Your task to perform on an android device: Clear the cart on amazon. Add "razer blade" to the cart on amazon, then select checkout. Image 0: 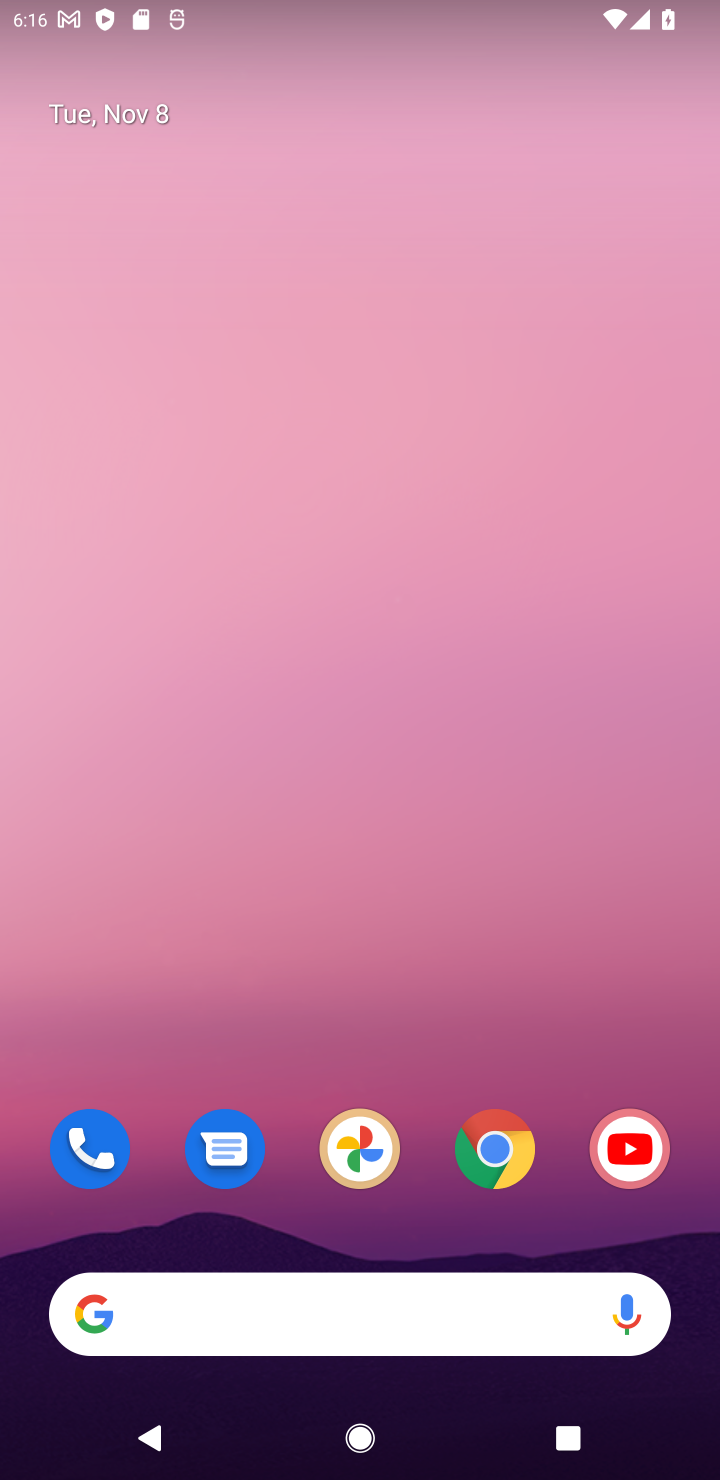
Step 0: click (511, 1167)
Your task to perform on an android device: Clear the cart on amazon. Add "razer blade" to the cart on amazon, then select checkout. Image 1: 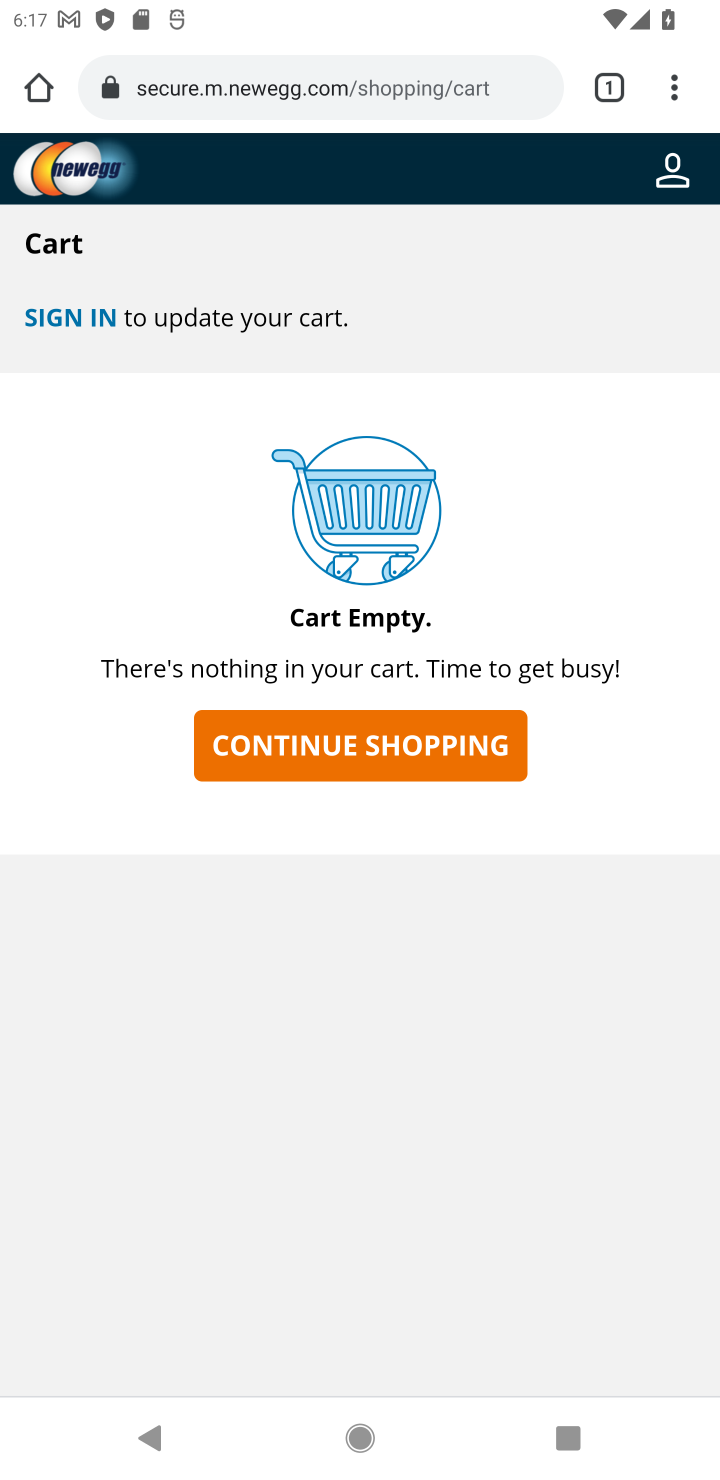
Step 1: click (49, 87)
Your task to perform on an android device: Clear the cart on amazon. Add "razer blade" to the cart on amazon, then select checkout. Image 2: 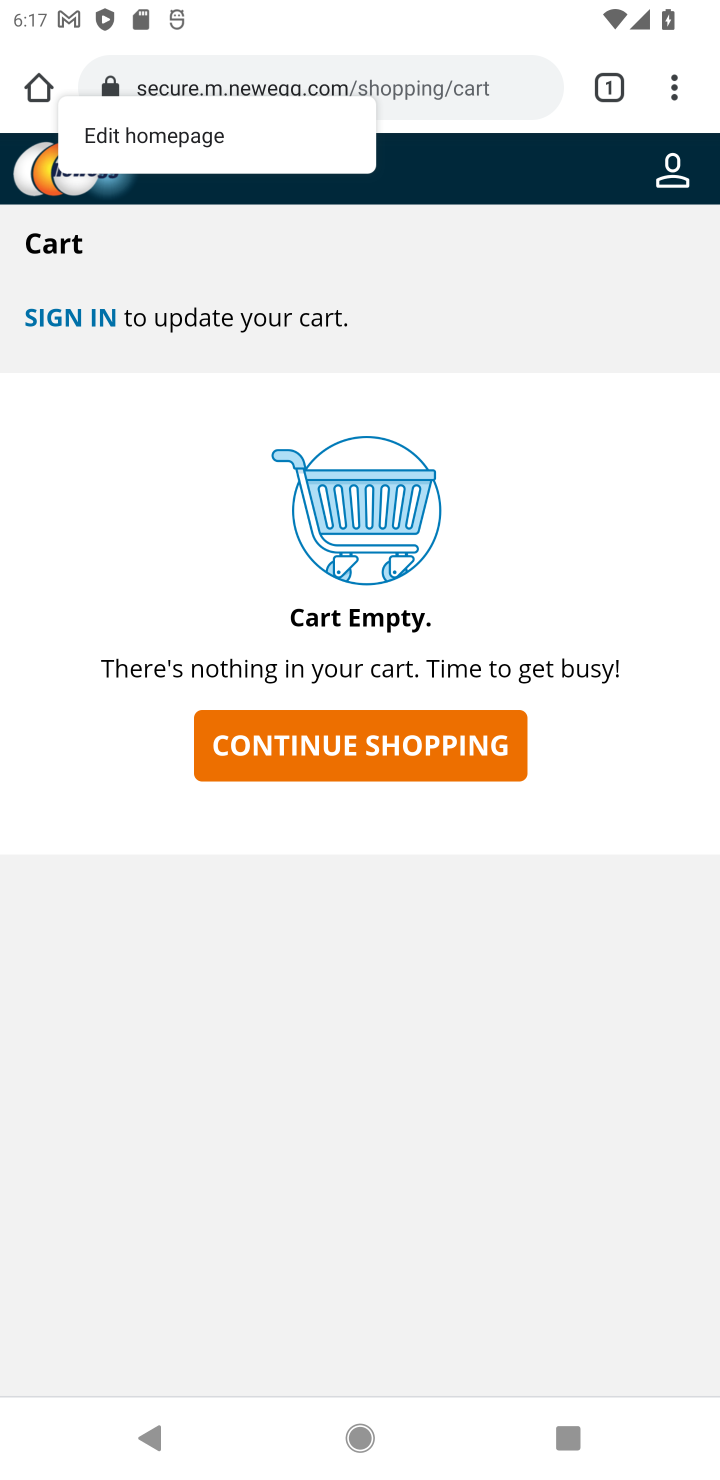
Step 2: click (39, 89)
Your task to perform on an android device: Clear the cart on amazon. Add "razer blade" to the cart on amazon, then select checkout. Image 3: 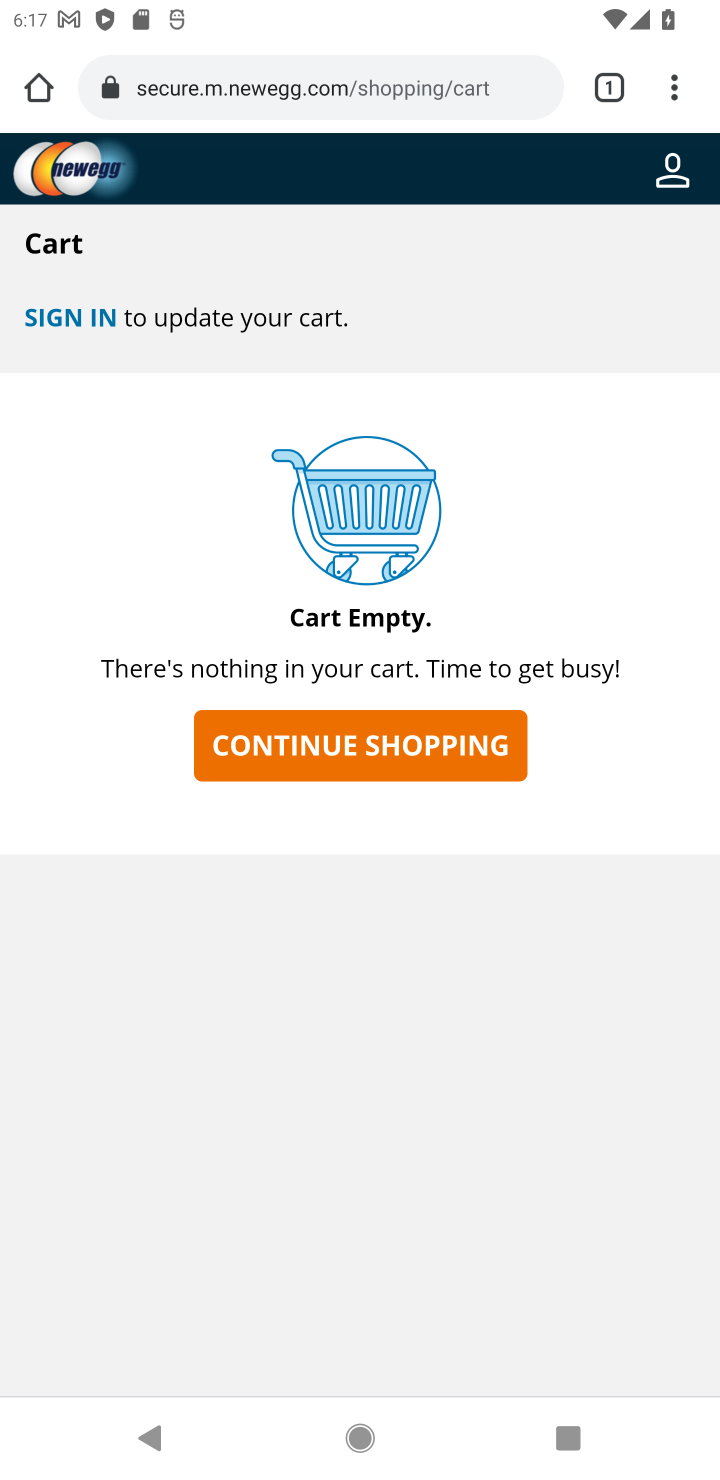
Step 3: click (39, 89)
Your task to perform on an android device: Clear the cart on amazon. Add "razer blade" to the cart on amazon, then select checkout. Image 4: 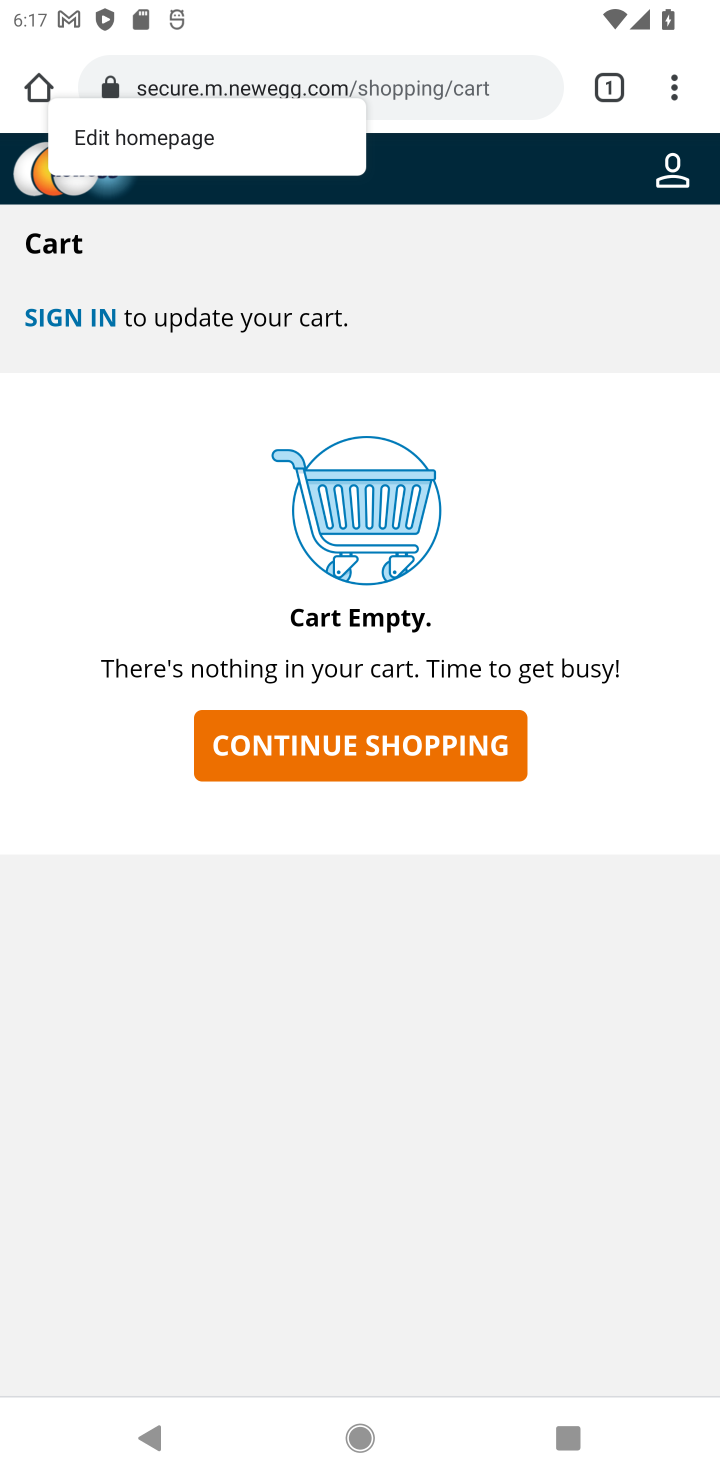
Step 4: click (531, 74)
Your task to perform on an android device: Clear the cart on amazon. Add "razer blade" to the cart on amazon, then select checkout. Image 5: 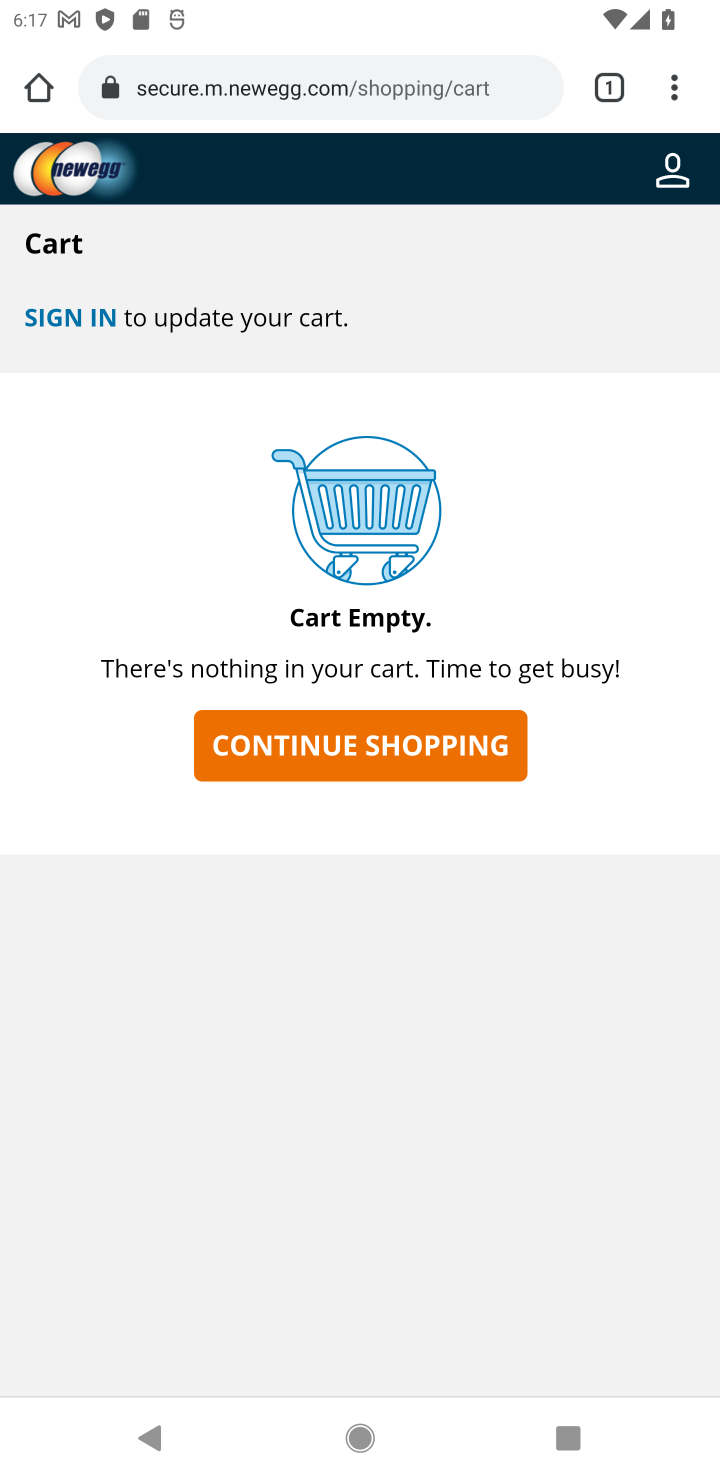
Step 5: click (531, 74)
Your task to perform on an android device: Clear the cart on amazon. Add "razer blade" to the cart on amazon, then select checkout. Image 6: 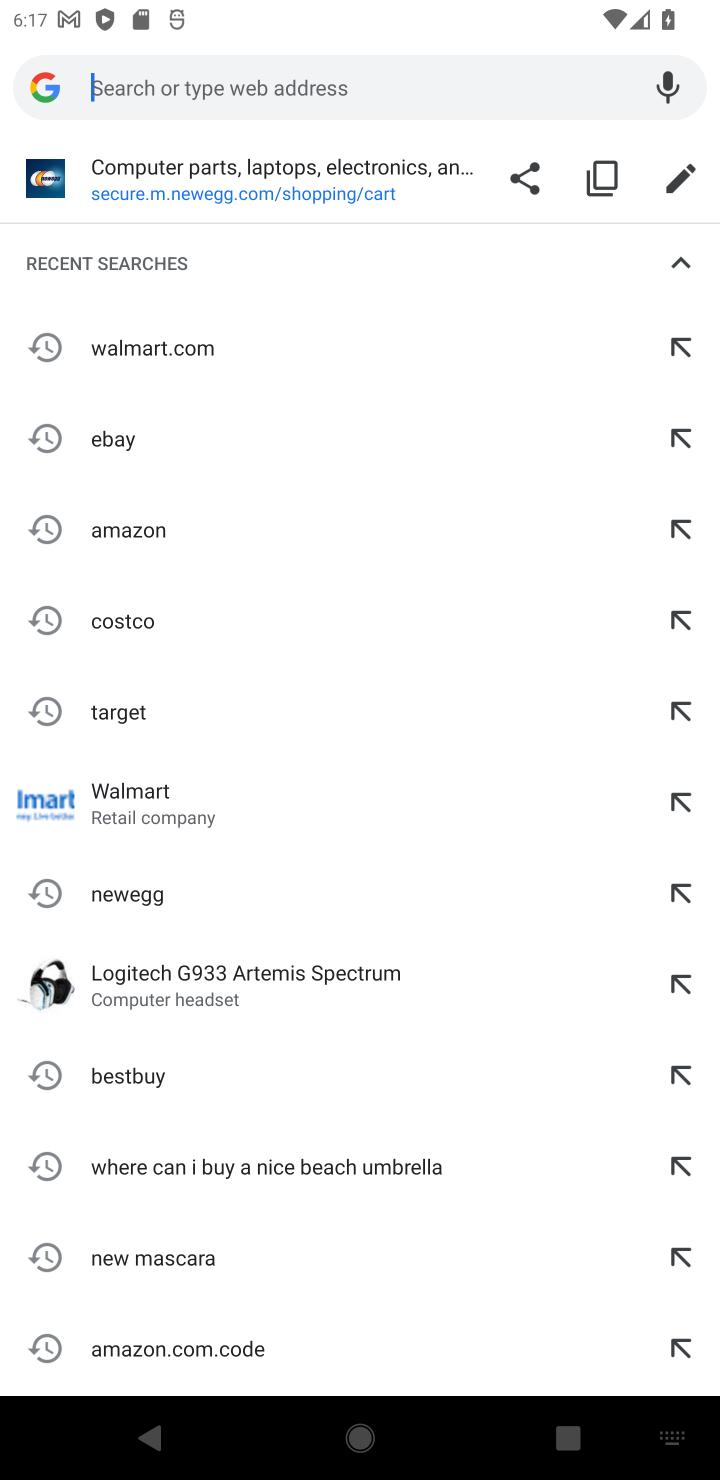
Step 6: click (143, 537)
Your task to perform on an android device: Clear the cart on amazon. Add "razer blade" to the cart on amazon, then select checkout. Image 7: 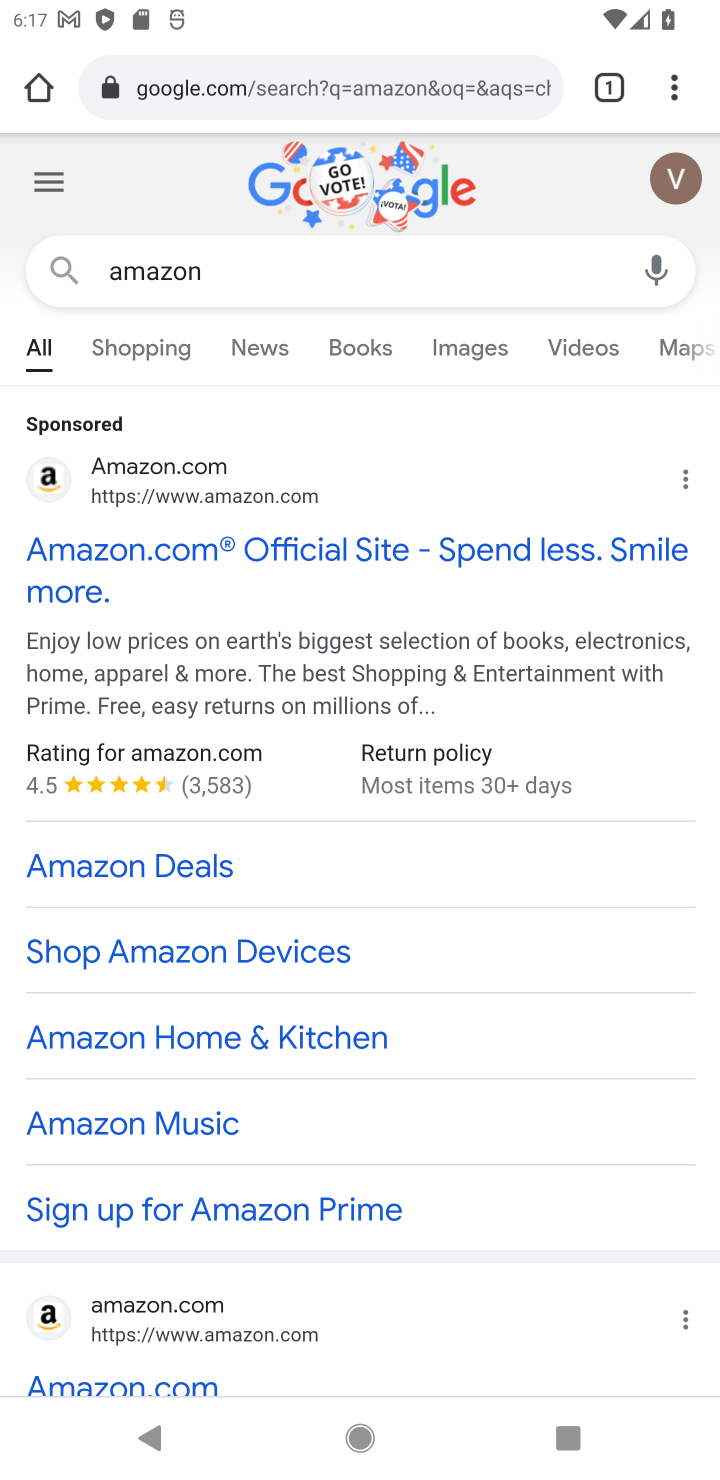
Step 7: click (266, 489)
Your task to perform on an android device: Clear the cart on amazon. Add "razer blade" to the cart on amazon, then select checkout. Image 8: 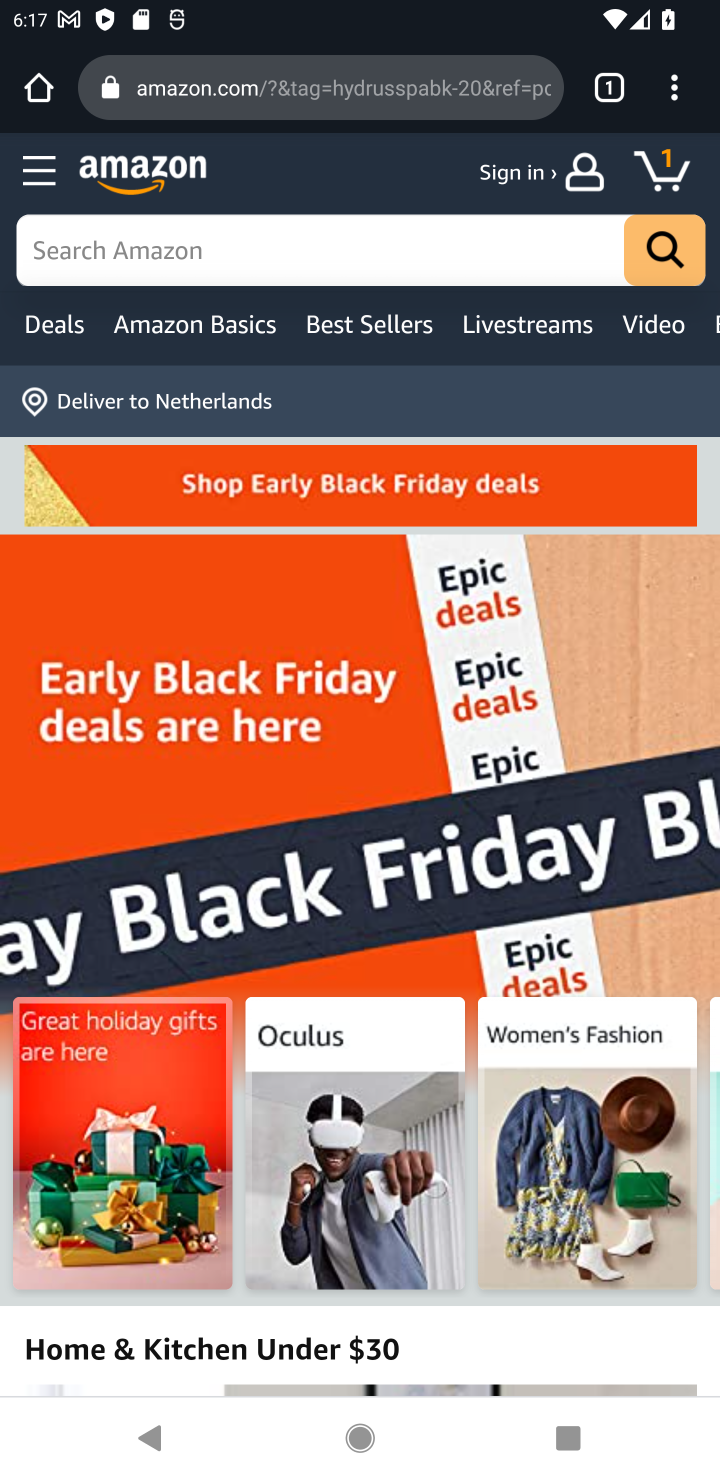
Step 8: click (662, 165)
Your task to perform on an android device: Clear the cart on amazon. Add "razer blade" to the cart on amazon, then select checkout. Image 9: 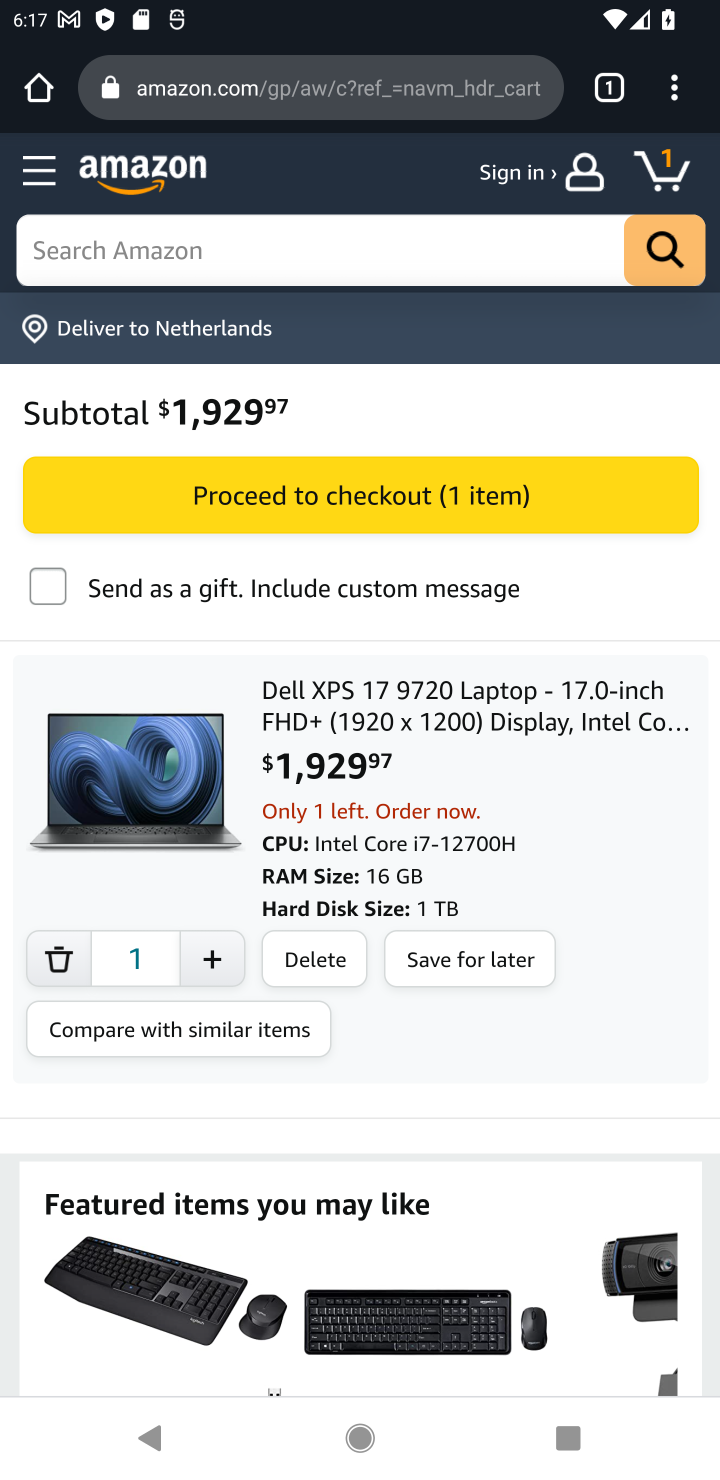
Step 9: click (324, 942)
Your task to perform on an android device: Clear the cart on amazon. Add "razer blade" to the cart on amazon, then select checkout. Image 10: 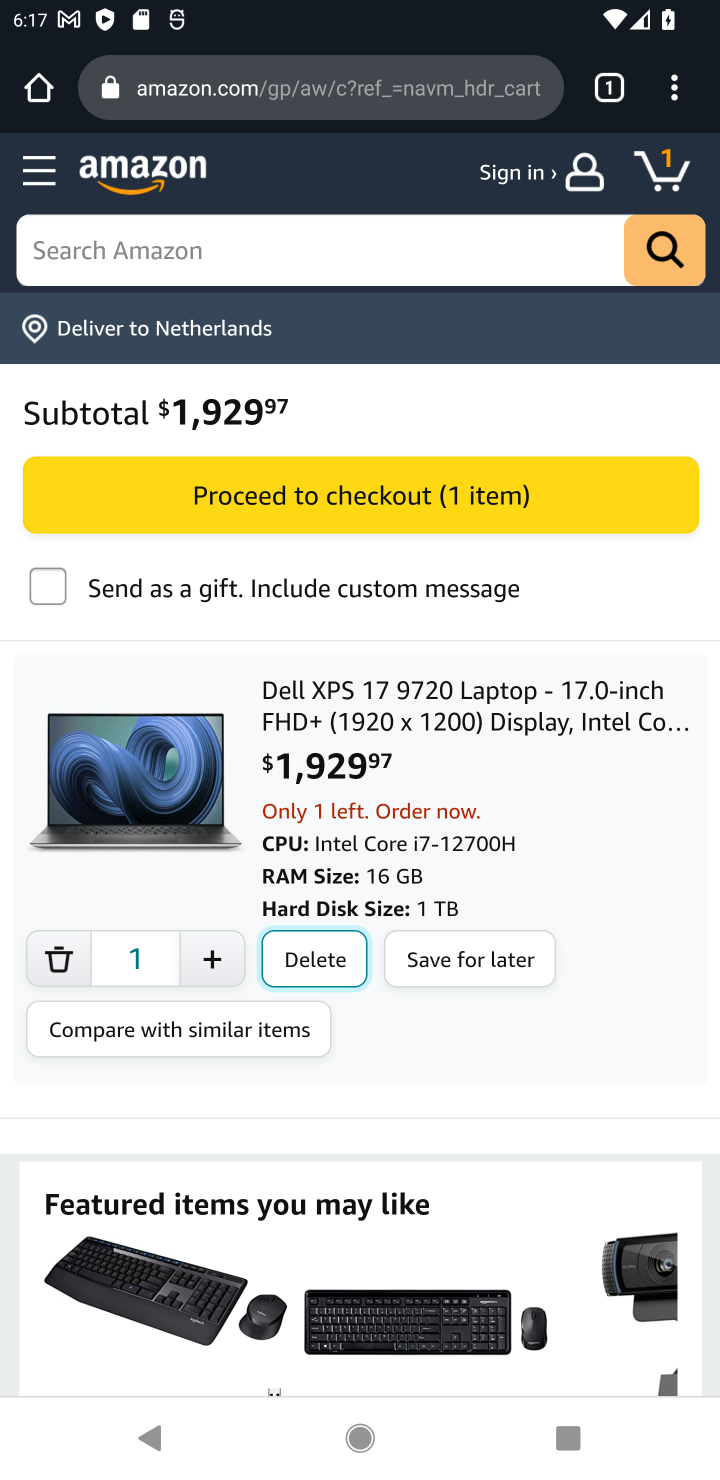
Step 10: click (321, 963)
Your task to perform on an android device: Clear the cart on amazon. Add "razer blade" to the cart on amazon, then select checkout. Image 11: 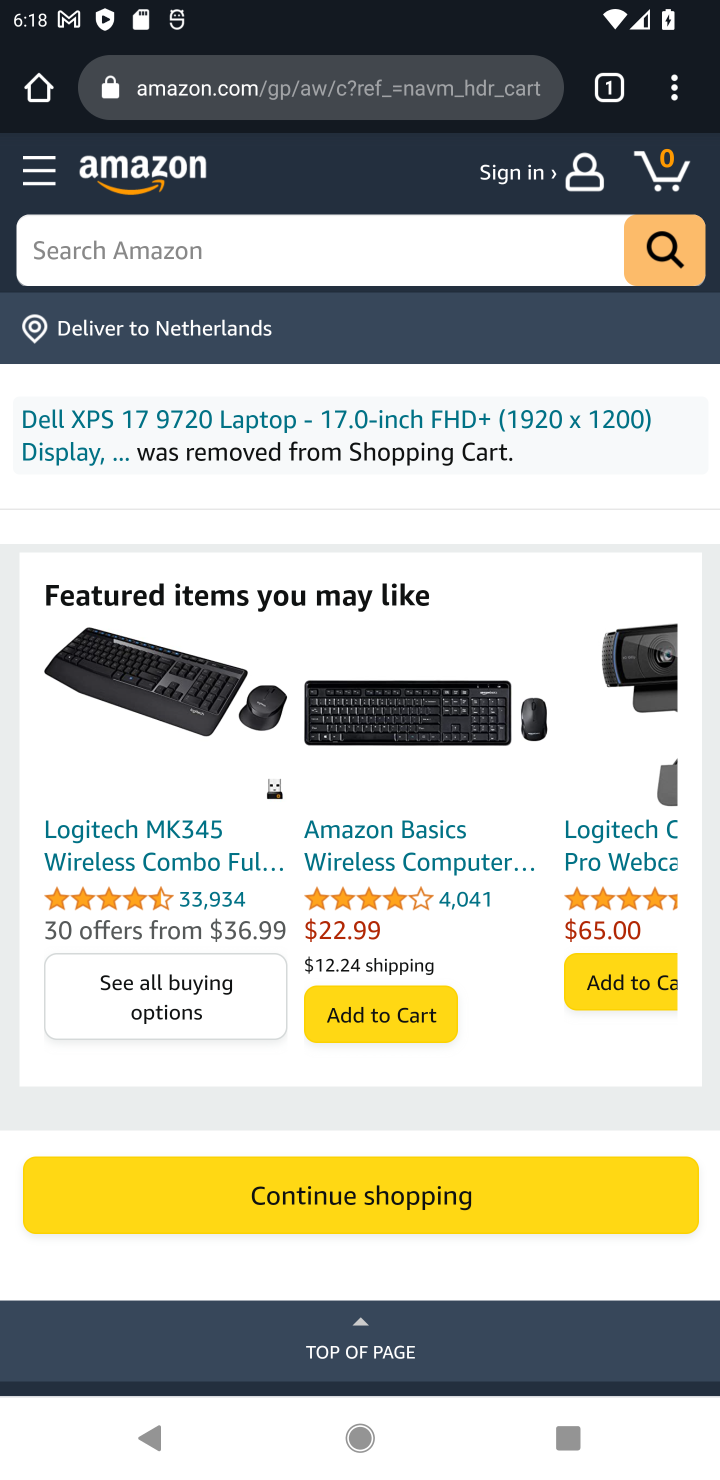
Step 11: click (420, 234)
Your task to perform on an android device: Clear the cart on amazon. Add "razer blade" to the cart on amazon, then select checkout. Image 12: 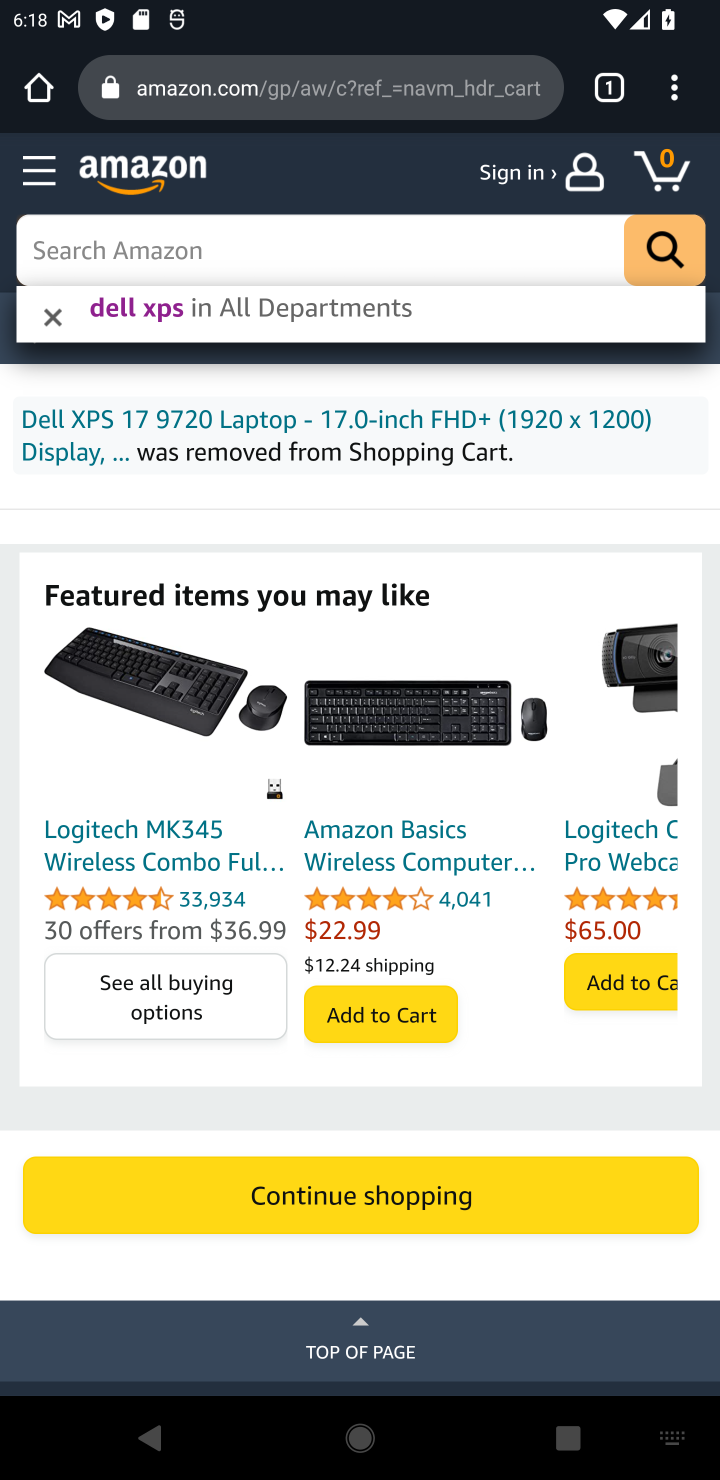
Step 12: type "razer blade"
Your task to perform on an android device: Clear the cart on amazon. Add "razer blade" to the cart on amazon, then select checkout. Image 13: 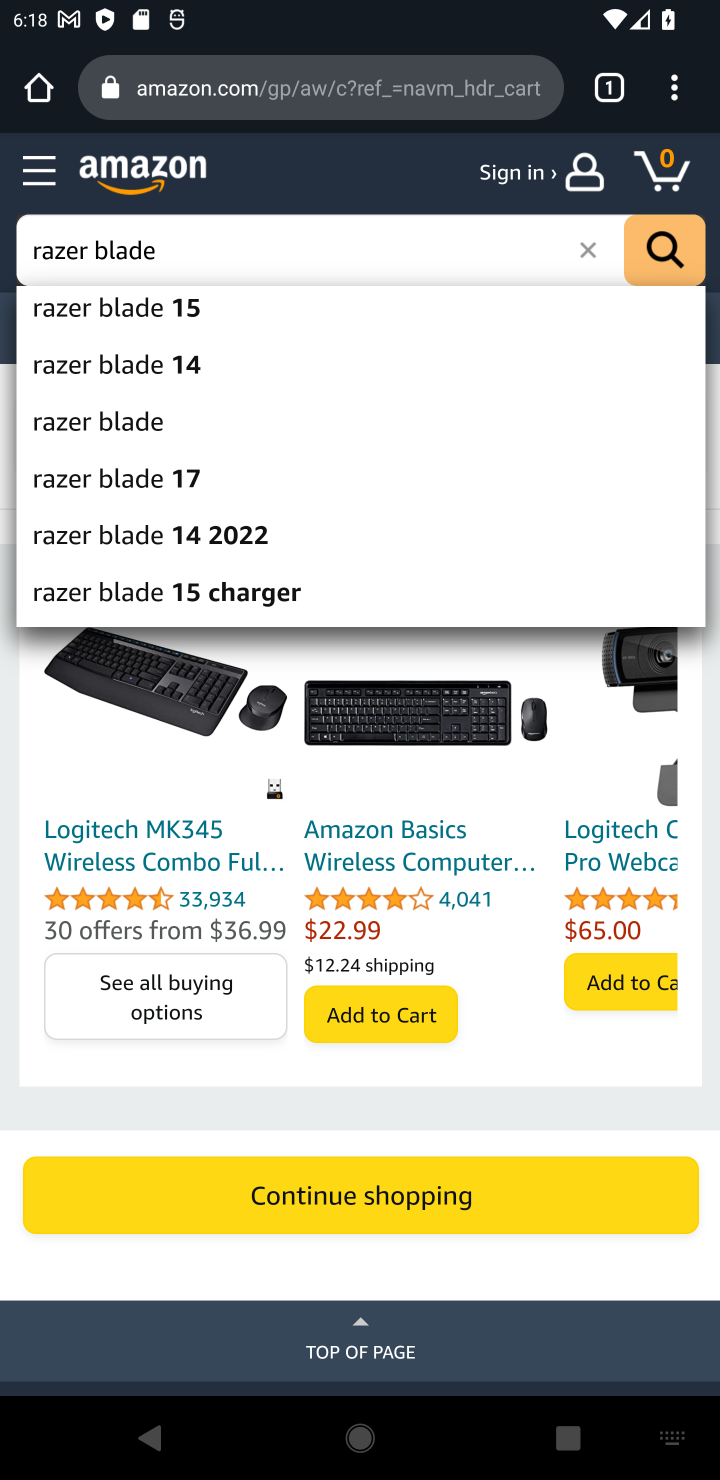
Step 13: click (142, 420)
Your task to perform on an android device: Clear the cart on amazon. Add "razer blade" to the cart on amazon, then select checkout. Image 14: 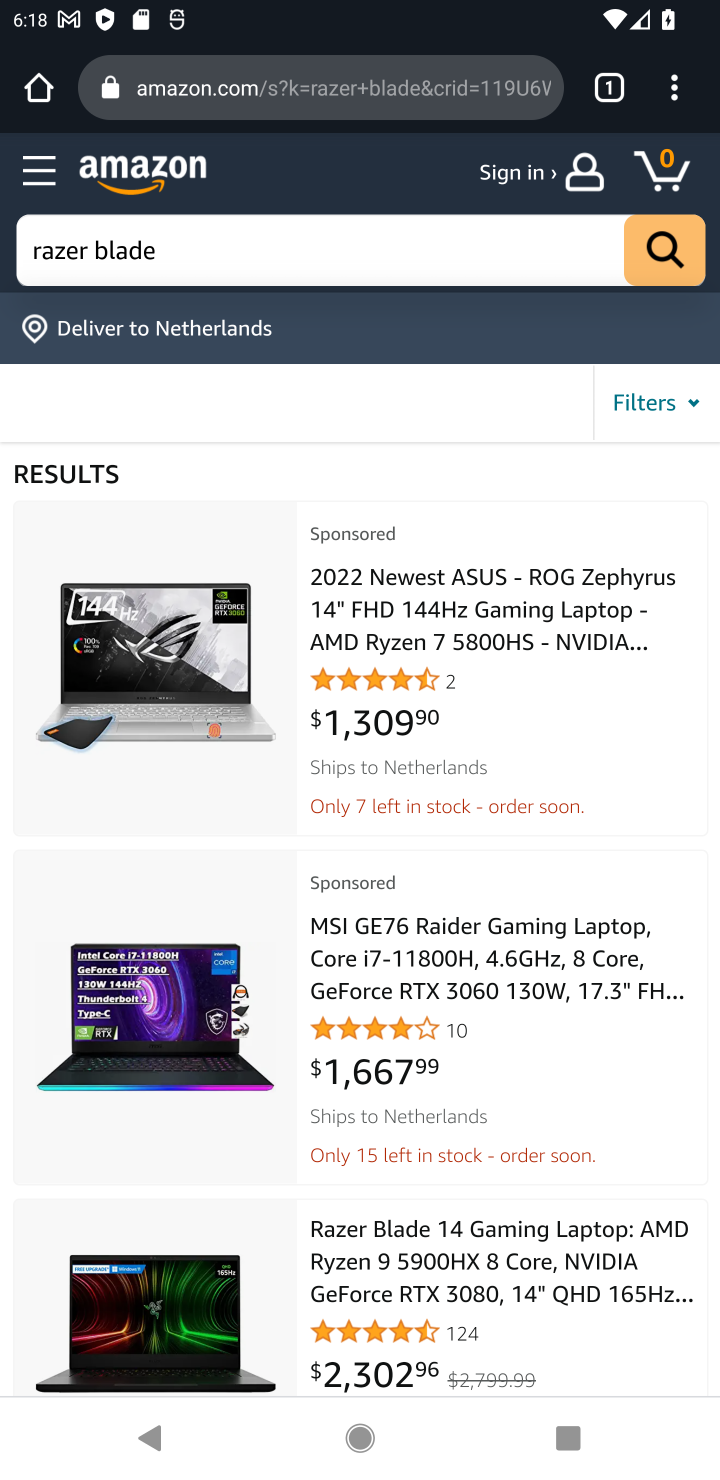
Step 14: click (145, 1327)
Your task to perform on an android device: Clear the cart on amazon. Add "razer blade" to the cart on amazon, then select checkout. Image 15: 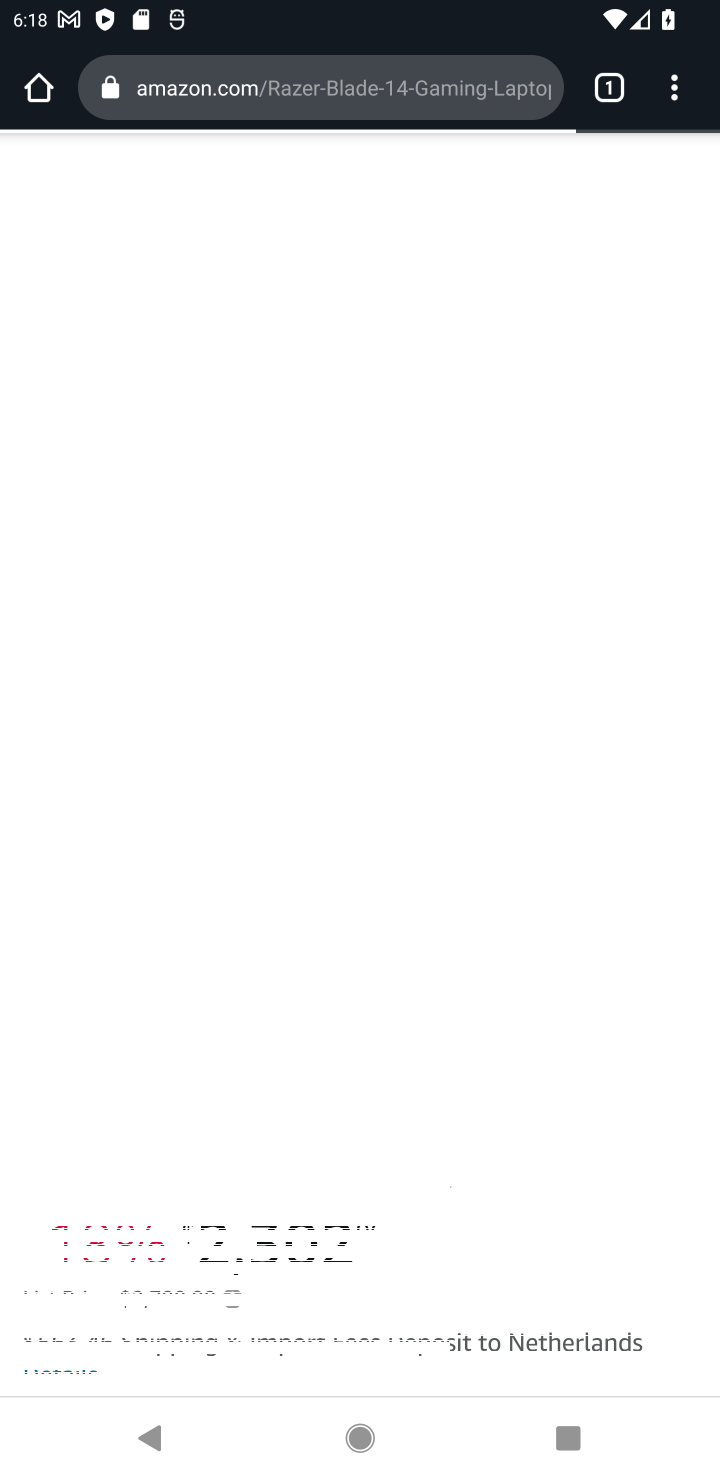
Step 15: drag from (456, 1245) to (475, 643)
Your task to perform on an android device: Clear the cart on amazon. Add "razer blade" to the cart on amazon, then select checkout. Image 16: 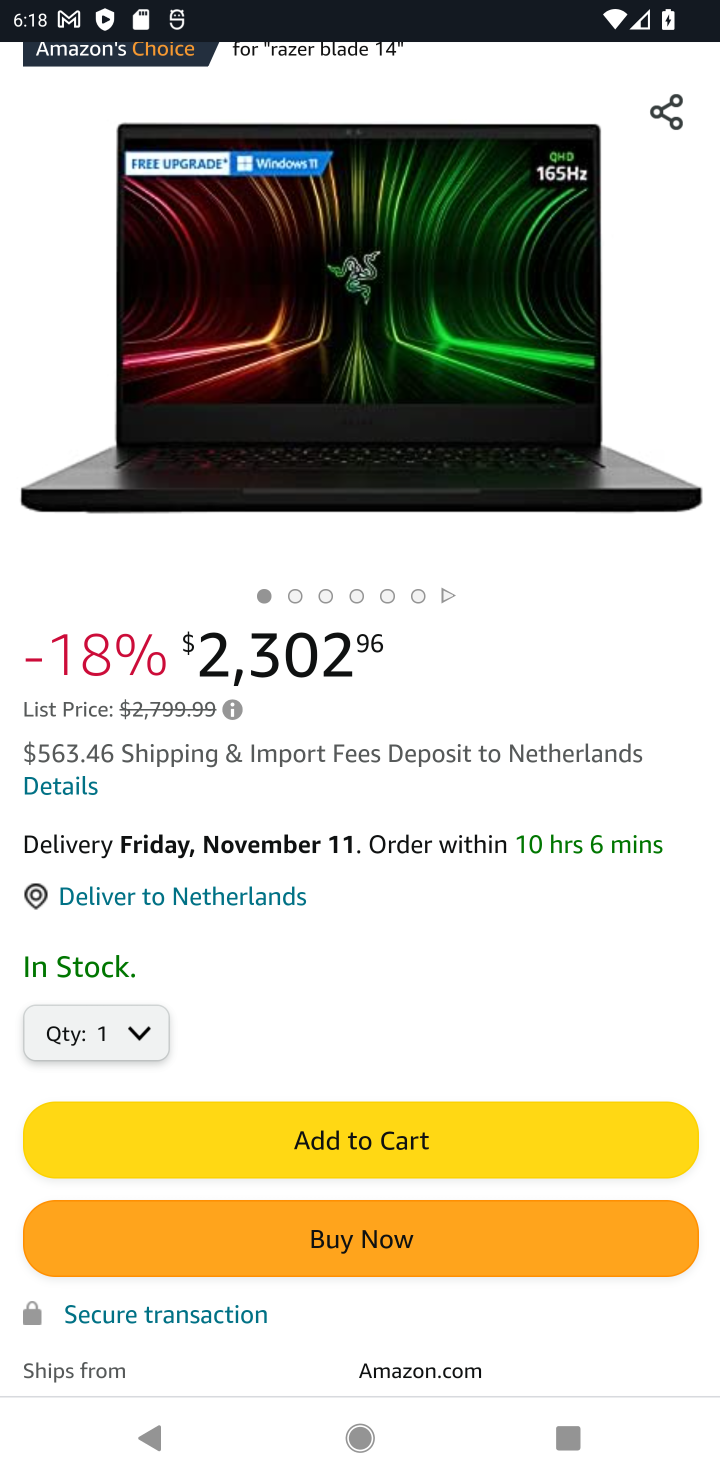
Step 16: click (457, 1136)
Your task to perform on an android device: Clear the cart on amazon. Add "razer blade" to the cart on amazon, then select checkout. Image 17: 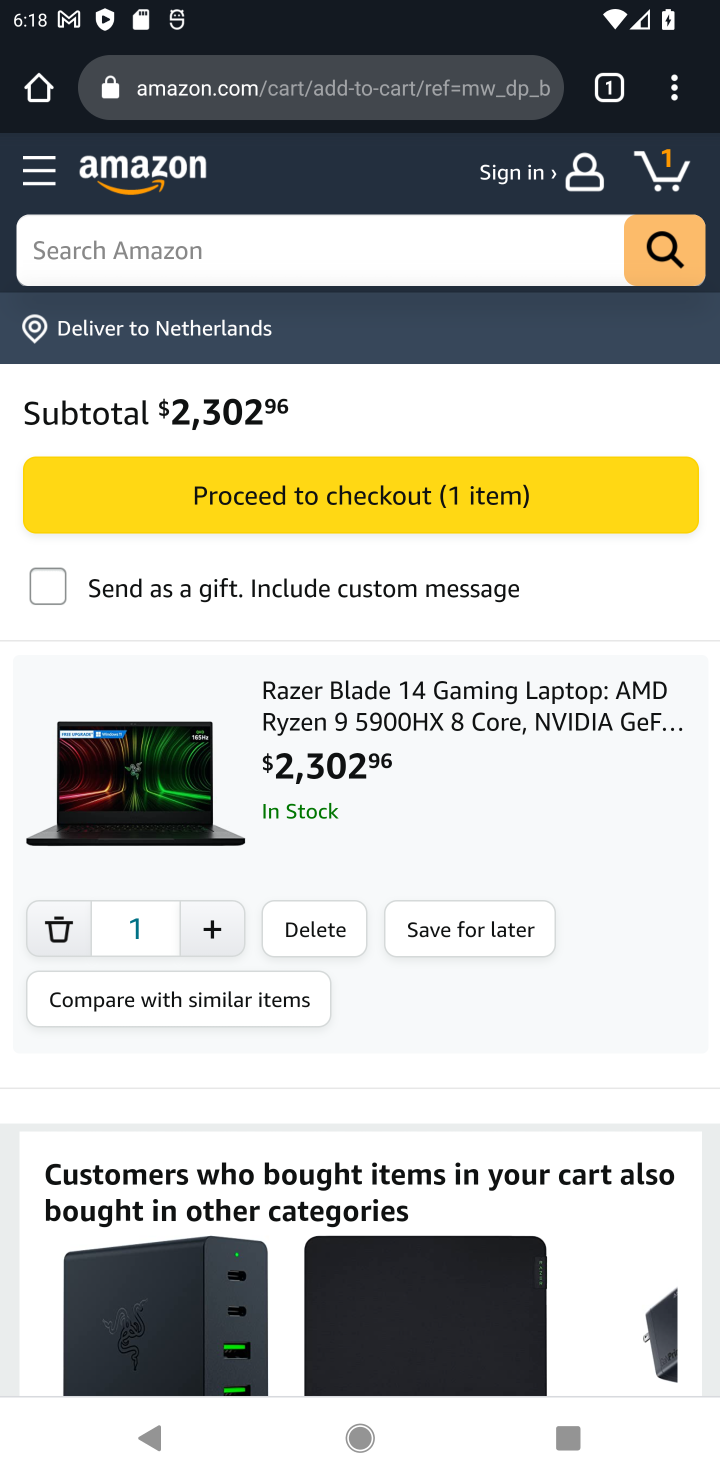
Step 17: click (400, 496)
Your task to perform on an android device: Clear the cart on amazon. Add "razer blade" to the cart on amazon, then select checkout. Image 18: 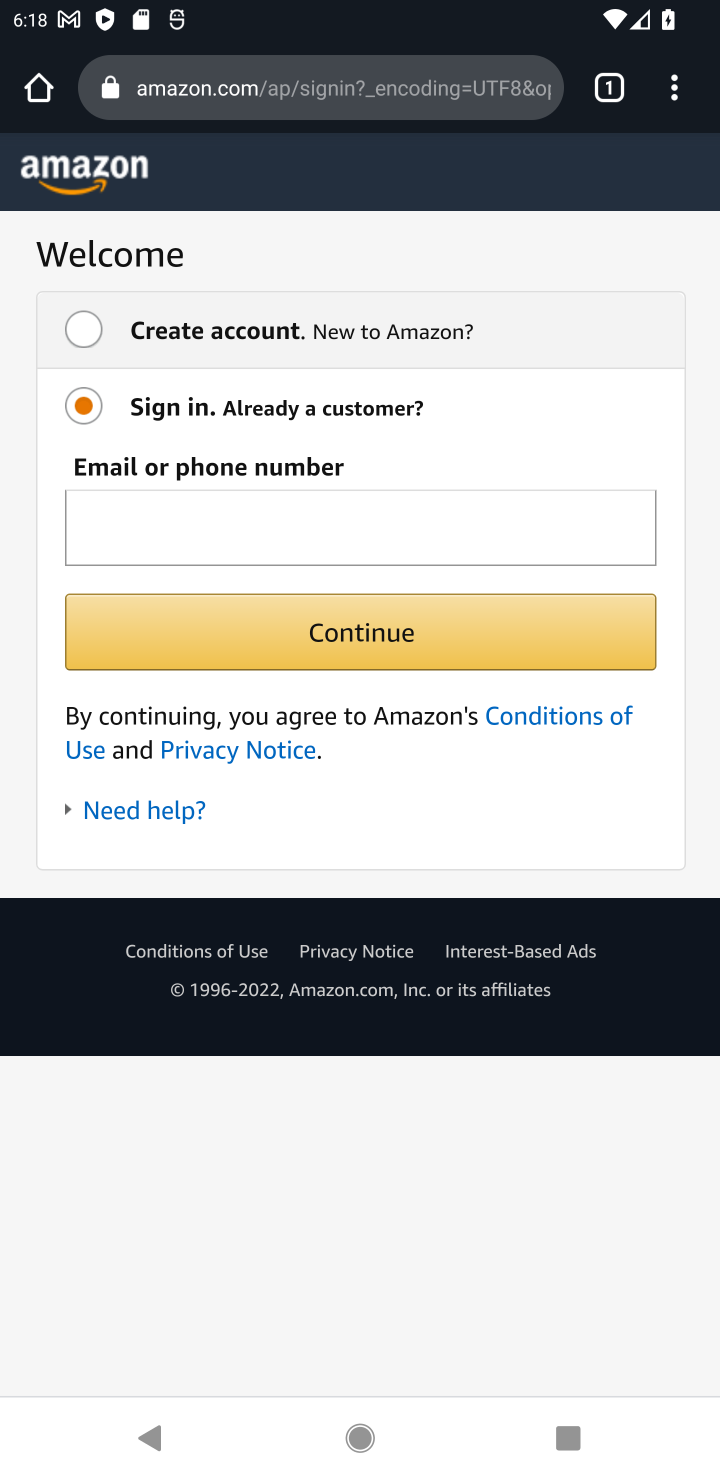
Step 18: task complete